Your task to perform on an android device: find which apps use the phone's location Image 0: 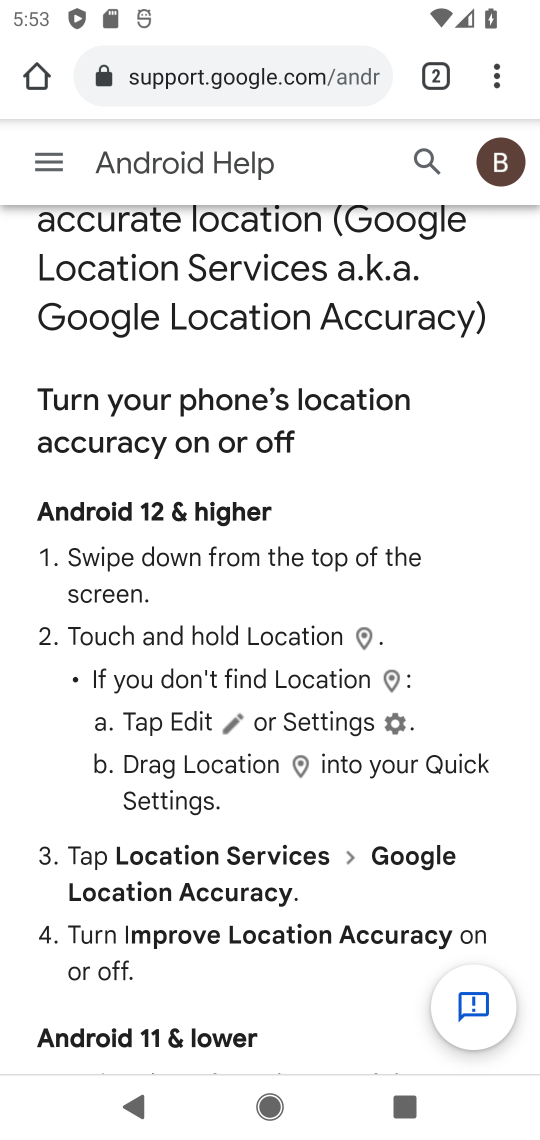
Step 0: press home button
Your task to perform on an android device: find which apps use the phone's location Image 1: 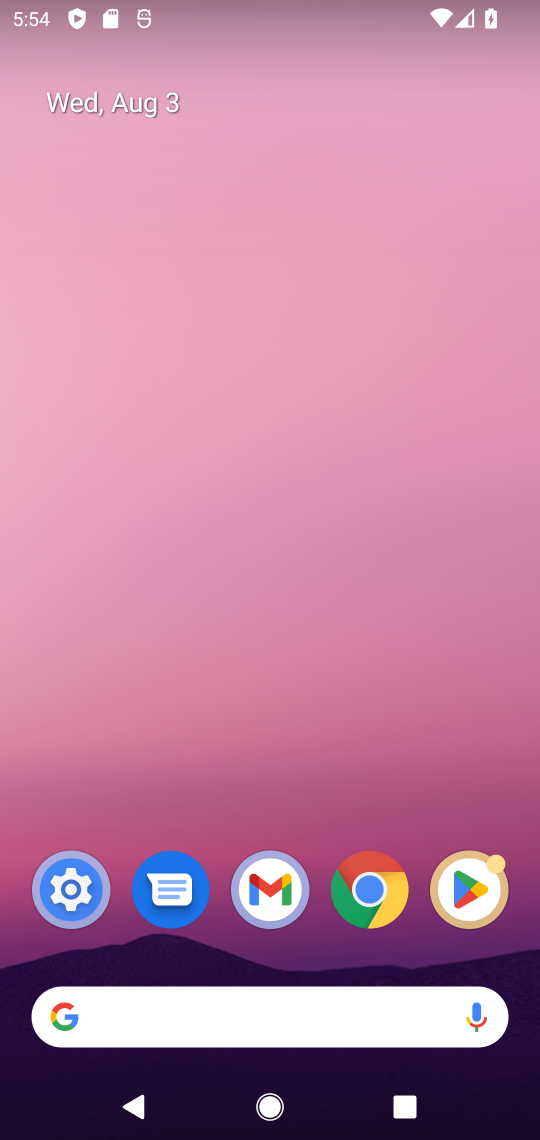
Step 1: click (84, 899)
Your task to perform on an android device: find which apps use the phone's location Image 2: 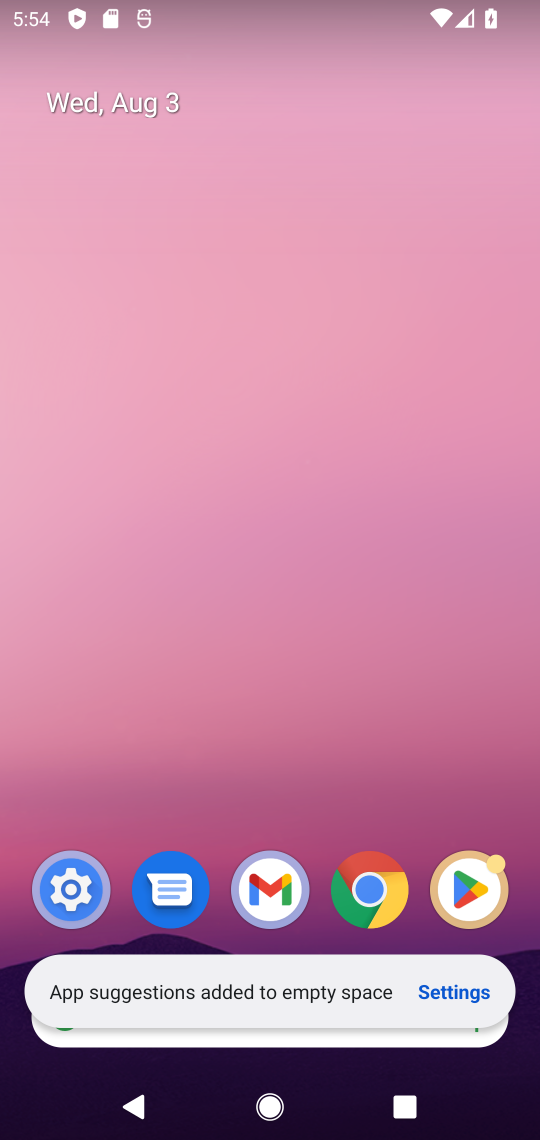
Step 2: click (84, 901)
Your task to perform on an android device: find which apps use the phone's location Image 3: 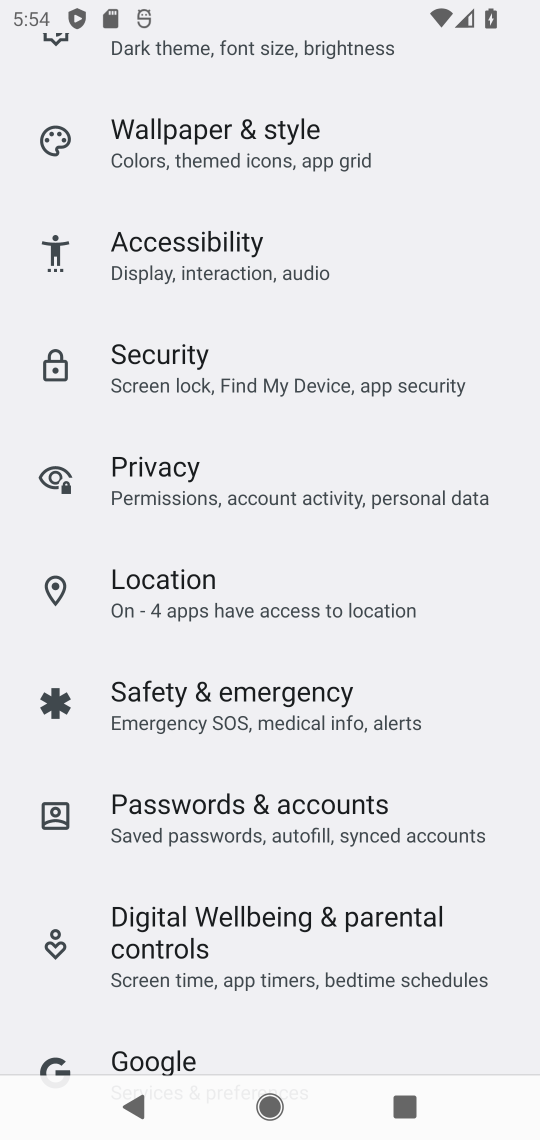
Step 3: click (242, 591)
Your task to perform on an android device: find which apps use the phone's location Image 4: 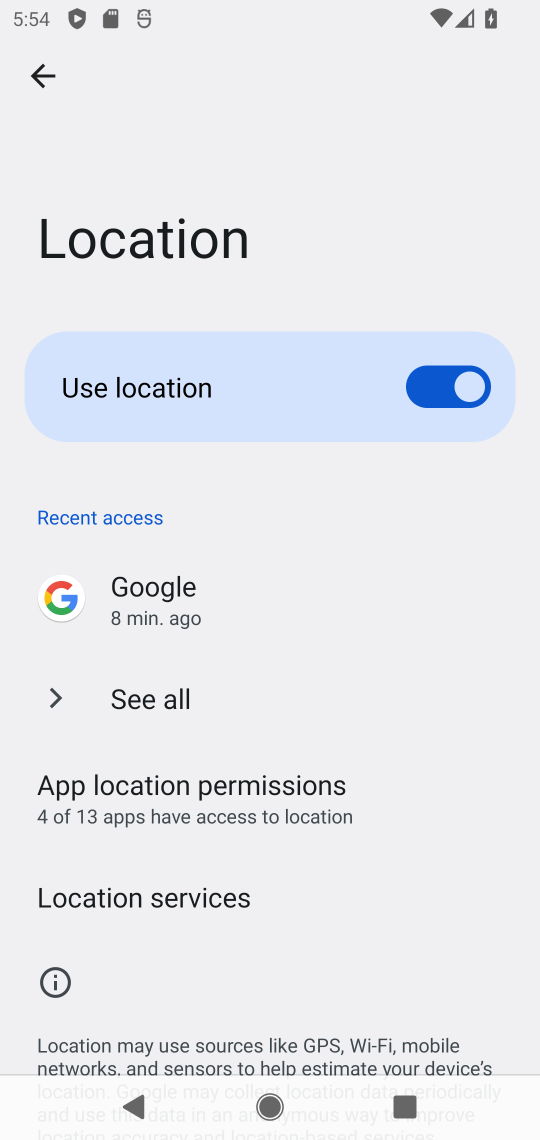
Step 4: click (162, 689)
Your task to perform on an android device: find which apps use the phone's location Image 5: 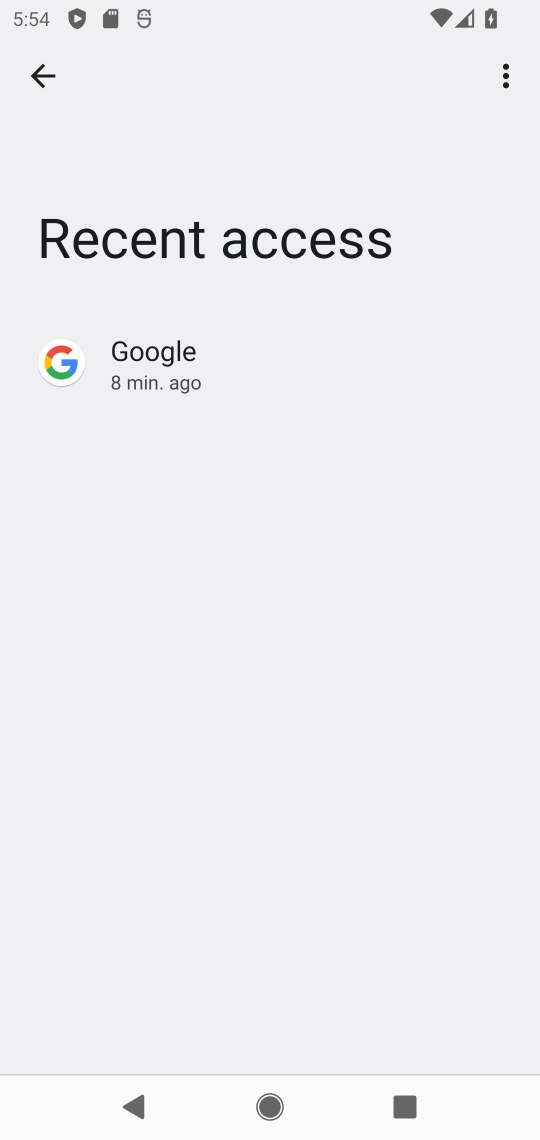
Step 5: task complete